Your task to perform on an android device: Show me the alarms in the clock app Image 0: 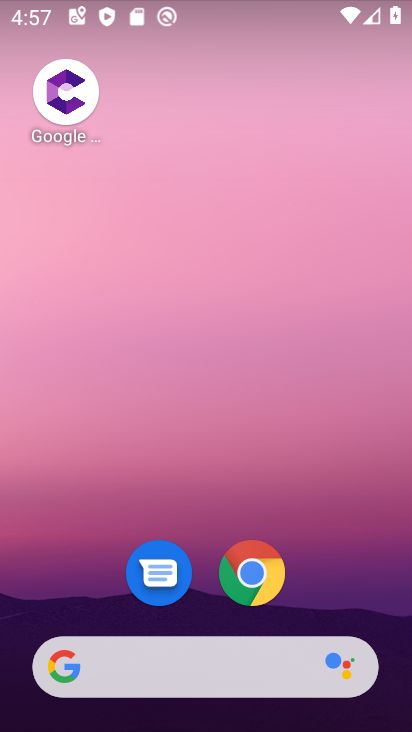
Step 0: drag from (312, 612) to (314, 252)
Your task to perform on an android device: Show me the alarms in the clock app Image 1: 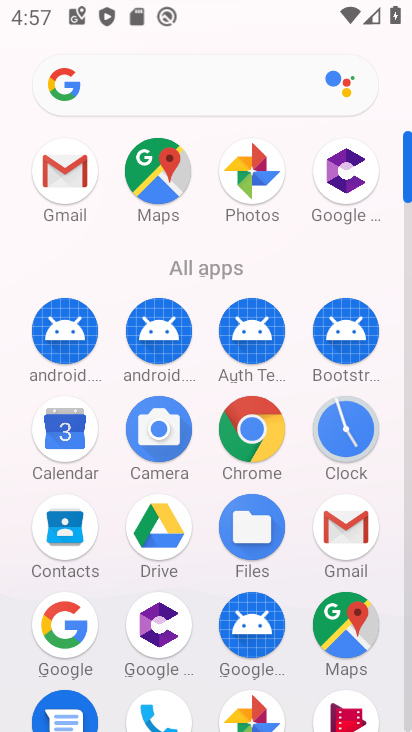
Step 1: click (342, 436)
Your task to perform on an android device: Show me the alarms in the clock app Image 2: 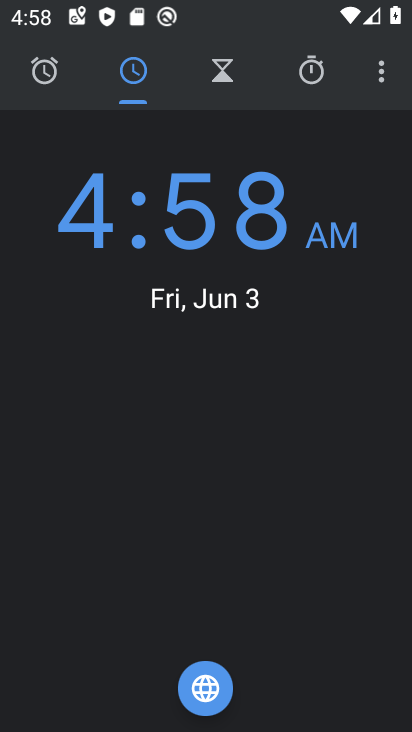
Step 2: click (383, 87)
Your task to perform on an android device: Show me the alarms in the clock app Image 3: 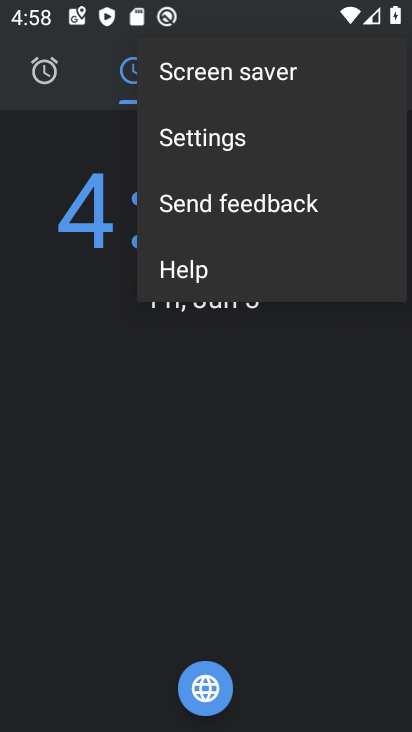
Step 3: click (59, 102)
Your task to perform on an android device: Show me the alarms in the clock app Image 4: 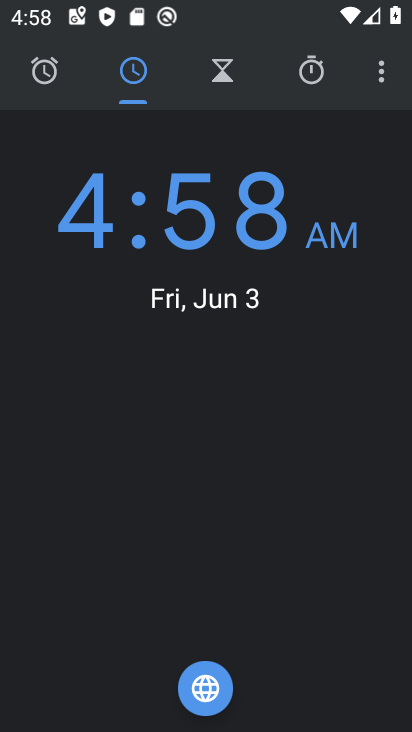
Step 4: click (49, 75)
Your task to perform on an android device: Show me the alarms in the clock app Image 5: 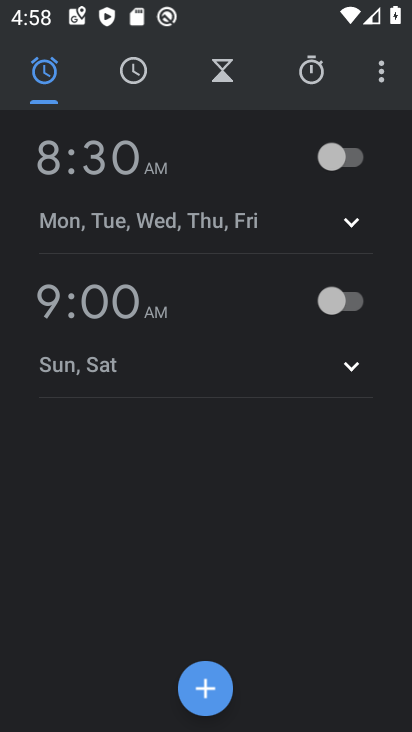
Step 5: task complete